Your task to perform on an android device: read, delete, or share a saved page in the chrome app Image 0: 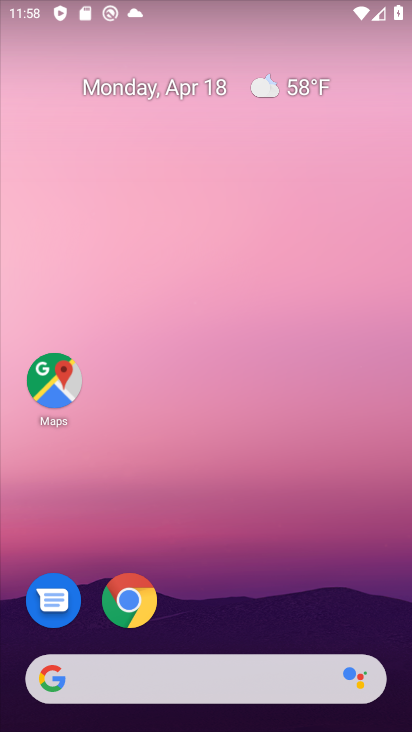
Step 0: drag from (190, 702) to (252, 291)
Your task to perform on an android device: read, delete, or share a saved page in the chrome app Image 1: 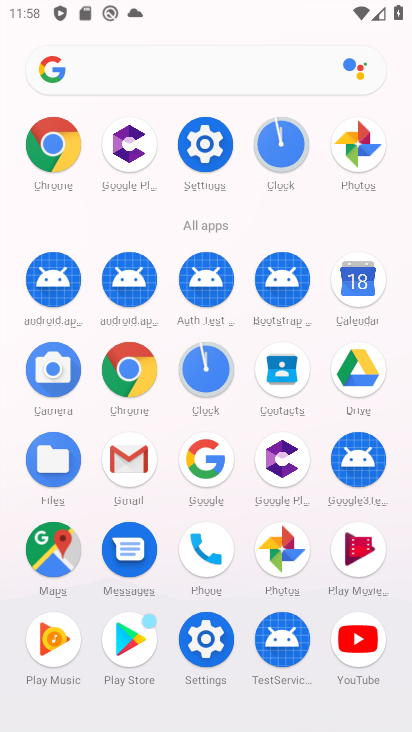
Step 1: click (66, 155)
Your task to perform on an android device: read, delete, or share a saved page in the chrome app Image 2: 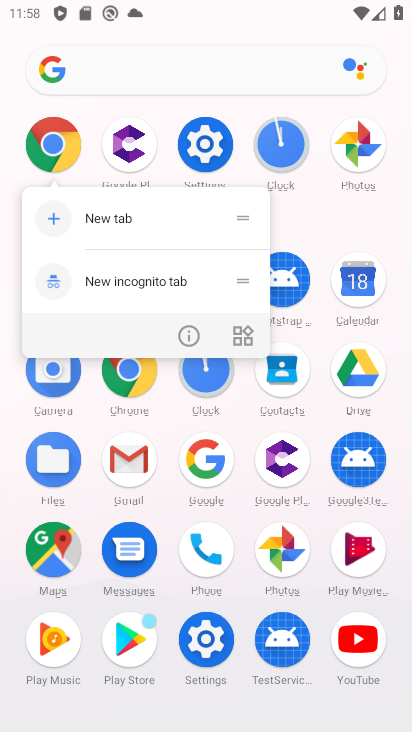
Step 2: click (54, 151)
Your task to perform on an android device: read, delete, or share a saved page in the chrome app Image 3: 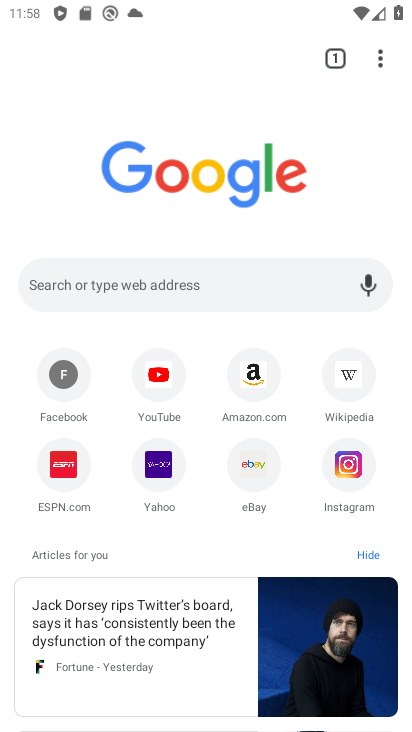
Step 3: click (378, 57)
Your task to perform on an android device: read, delete, or share a saved page in the chrome app Image 4: 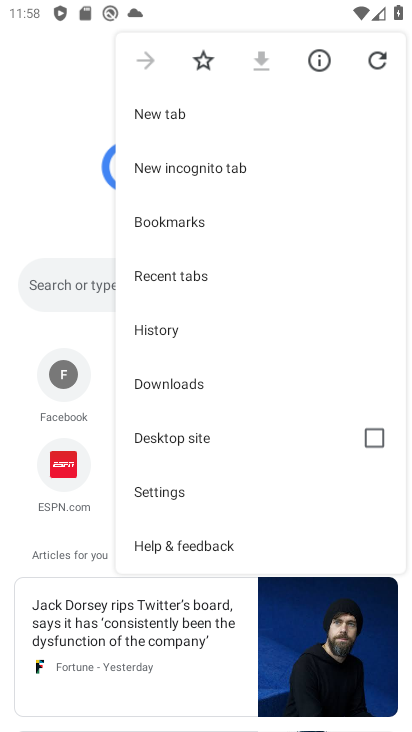
Step 4: click (164, 485)
Your task to perform on an android device: read, delete, or share a saved page in the chrome app Image 5: 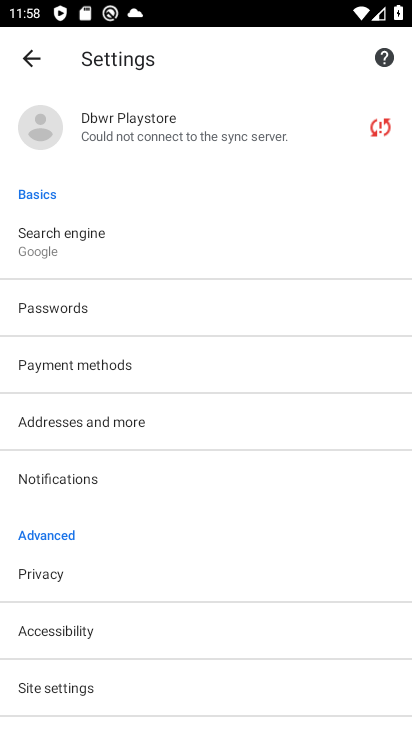
Step 5: drag from (93, 588) to (85, 352)
Your task to perform on an android device: read, delete, or share a saved page in the chrome app Image 6: 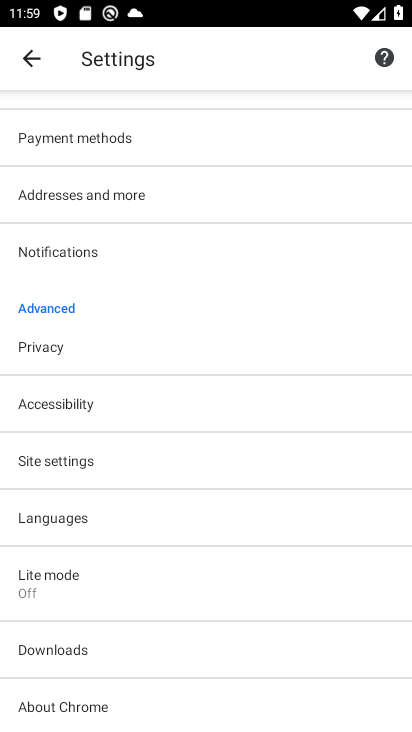
Step 6: click (72, 340)
Your task to perform on an android device: read, delete, or share a saved page in the chrome app Image 7: 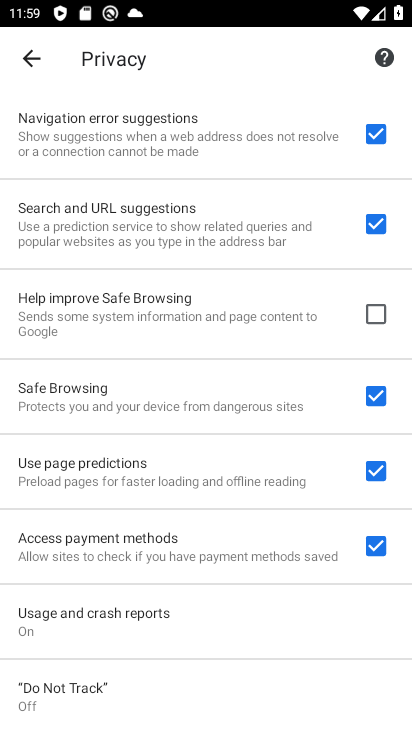
Step 7: drag from (167, 407) to (159, 104)
Your task to perform on an android device: read, delete, or share a saved page in the chrome app Image 8: 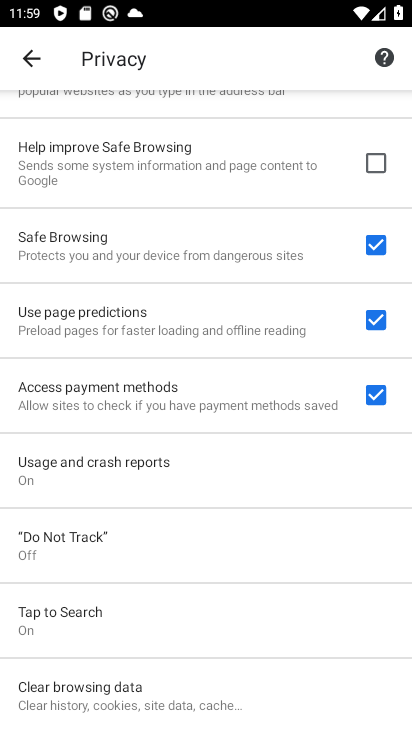
Step 8: click (108, 689)
Your task to perform on an android device: read, delete, or share a saved page in the chrome app Image 9: 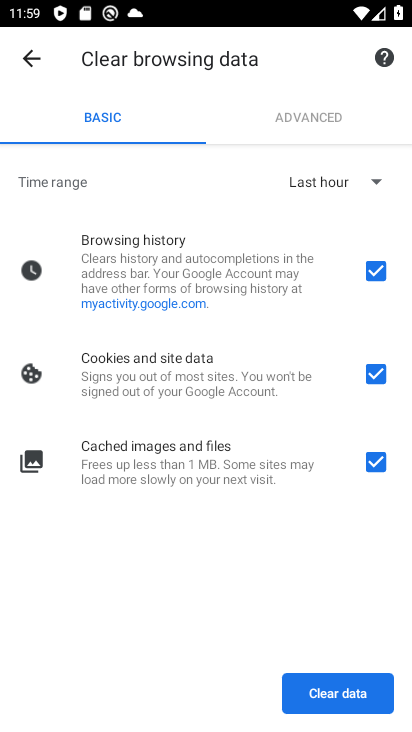
Step 9: click (337, 685)
Your task to perform on an android device: read, delete, or share a saved page in the chrome app Image 10: 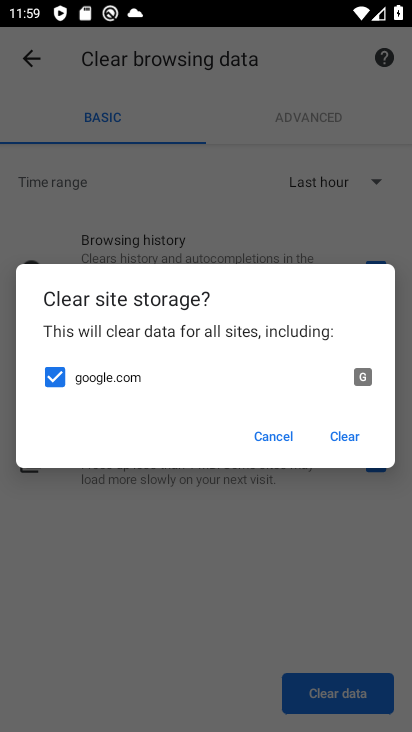
Step 10: task complete